Your task to perform on an android device: check google app version Image 0: 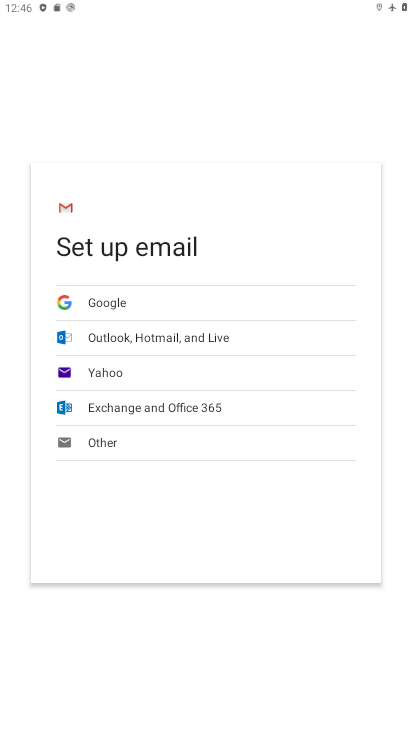
Step 0: press home button
Your task to perform on an android device: check google app version Image 1: 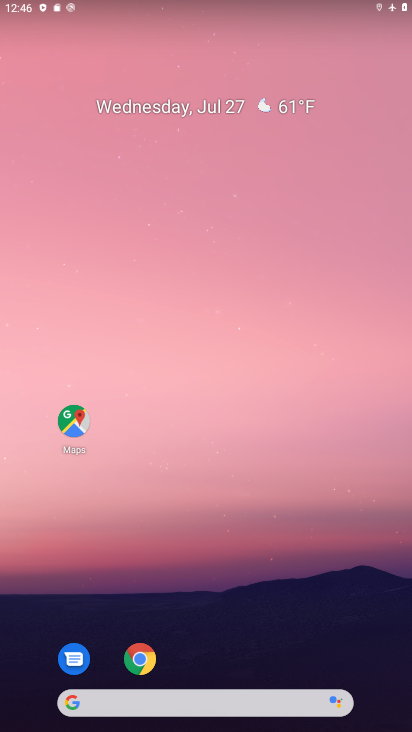
Step 1: drag from (226, 662) to (230, 118)
Your task to perform on an android device: check google app version Image 2: 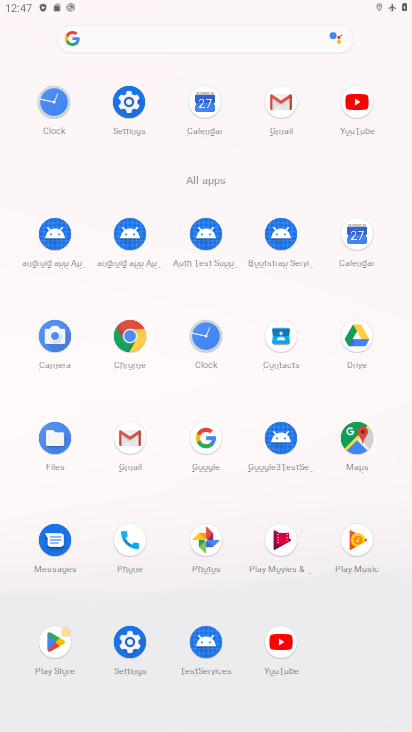
Step 2: click (211, 446)
Your task to perform on an android device: check google app version Image 3: 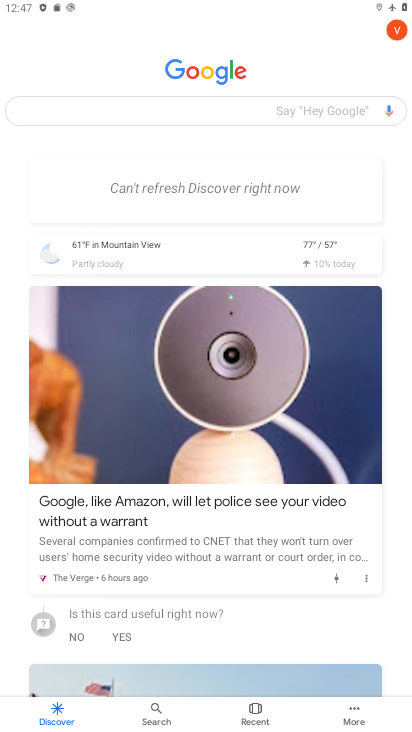
Step 3: click (398, 36)
Your task to perform on an android device: check google app version Image 4: 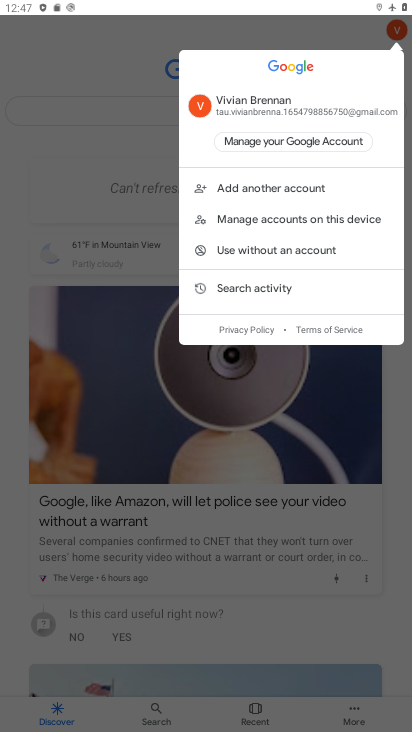
Step 4: click (308, 499)
Your task to perform on an android device: check google app version Image 5: 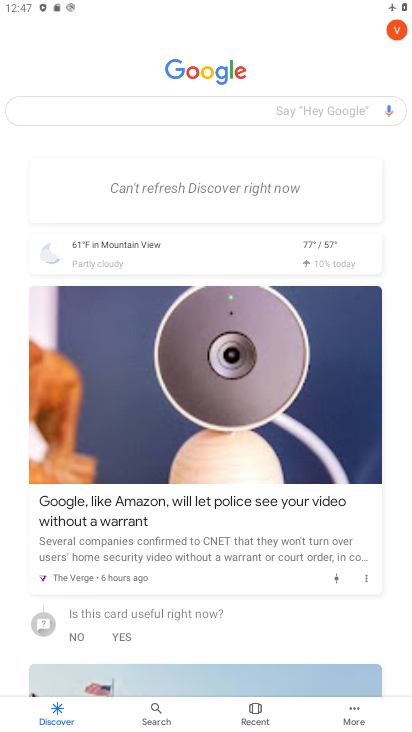
Step 5: click (348, 718)
Your task to perform on an android device: check google app version Image 6: 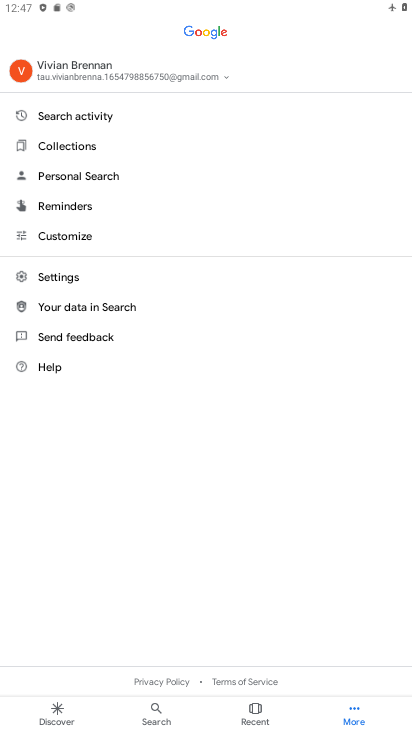
Step 6: click (67, 274)
Your task to perform on an android device: check google app version Image 7: 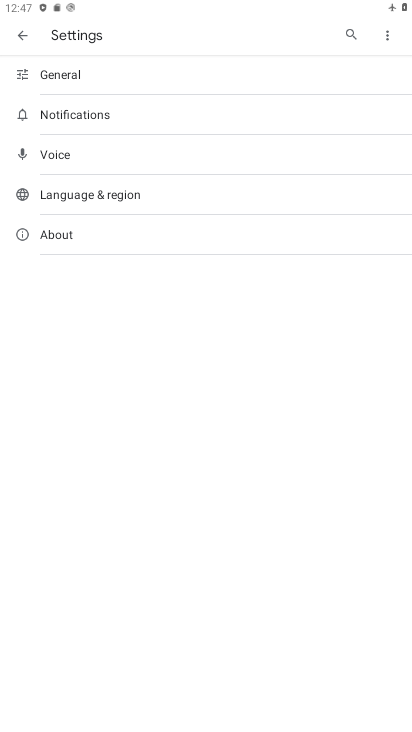
Step 7: click (96, 230)
Your task to perform on an android device: check google app version Image 8: 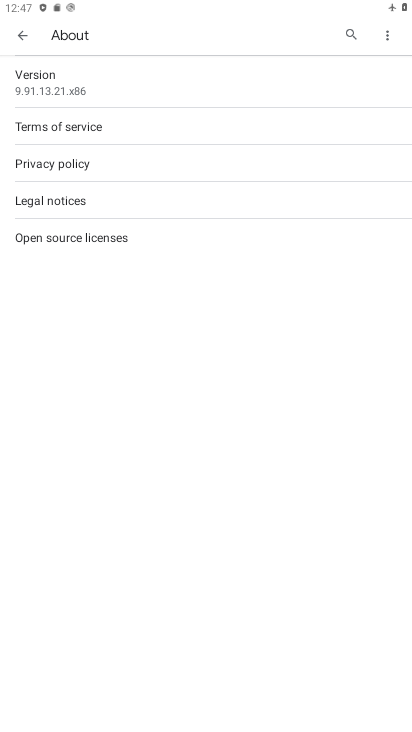
Step 8: click (44, 87)
Your task to perform on an android device: check google app version Image 9: 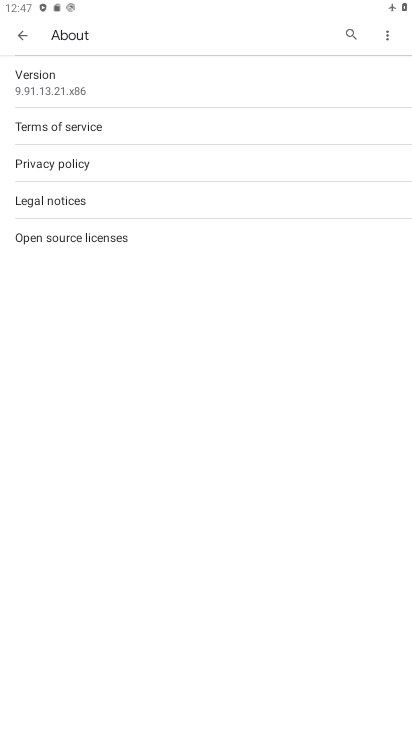
Step 9: click (56, 84)
Your task to perform on an android device: check google app version Image 10: 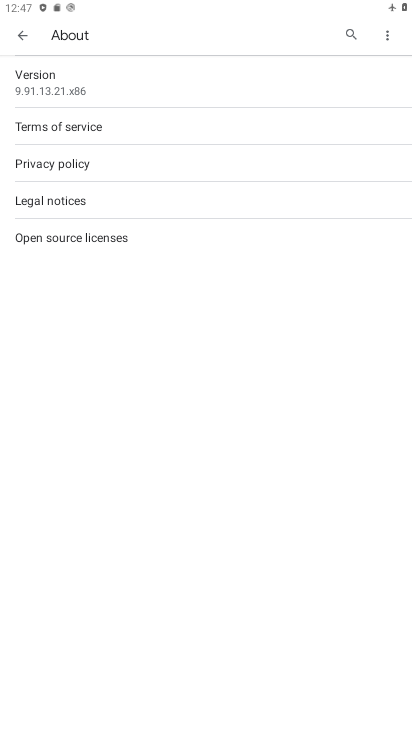
Step 10: click (58, 83)
Your task to perform on an android device: check google app version Image 11: 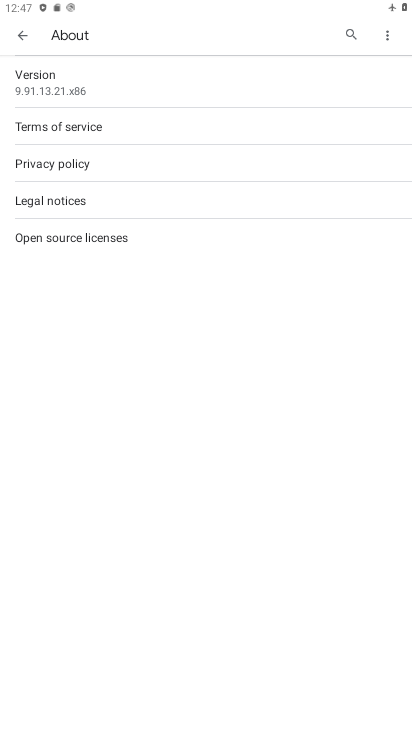
Step 11: task complete